Your task to perform on an android device: What's the weather today? Image 0: 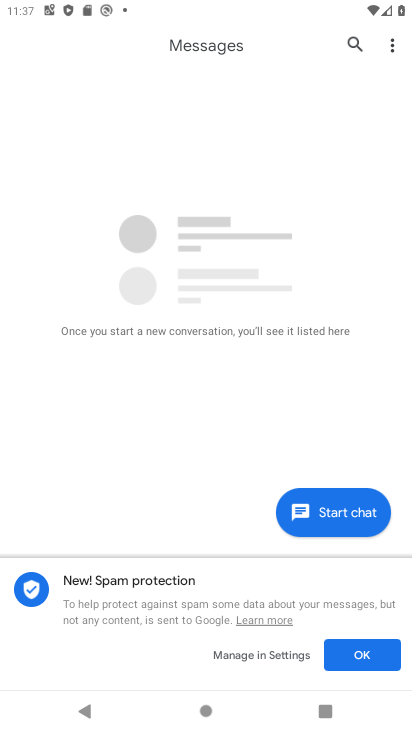
Step 0: press home button
Your task to perform on an android device: What's the weather today? Image 1: 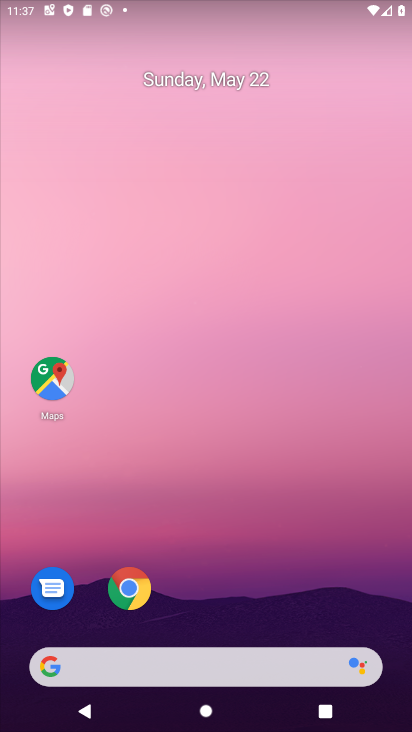
Step 1: drag from (249, 692) to (246, 171)
Your task to perform on an android device: What's the weather today? Image 2: 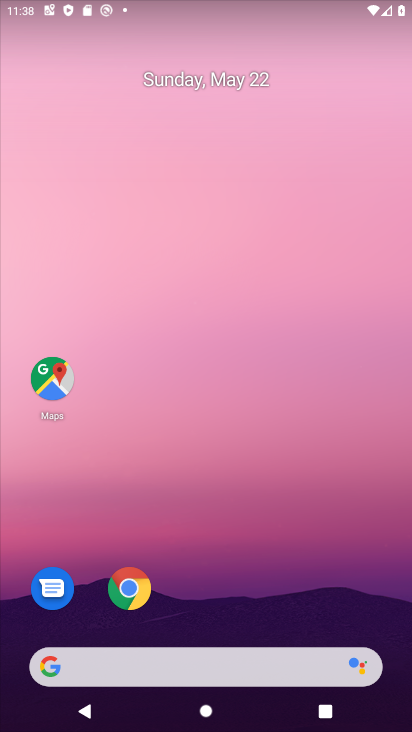
Step 2: drag from (248, 689) to (267, 11)
Your task to perform on an android device: What's the weather today? Image 3: 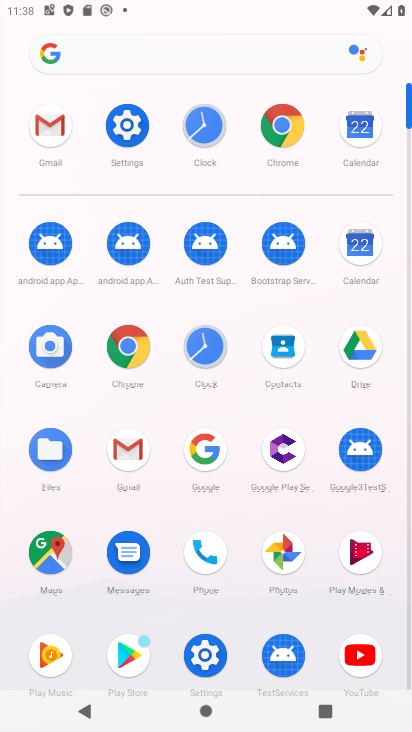
Step 3: click (178, 47)
Your task to perform on an android device: What's the weather today? Image 4: 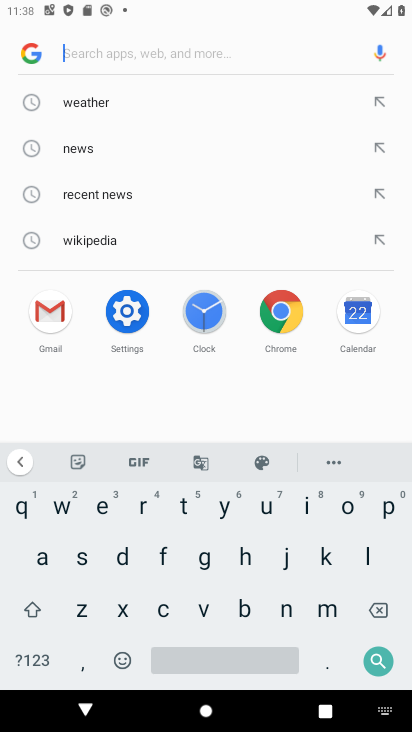
Step 4: click (87, 100)
Your task to perform on an android device: What's the weather today? Image 5: 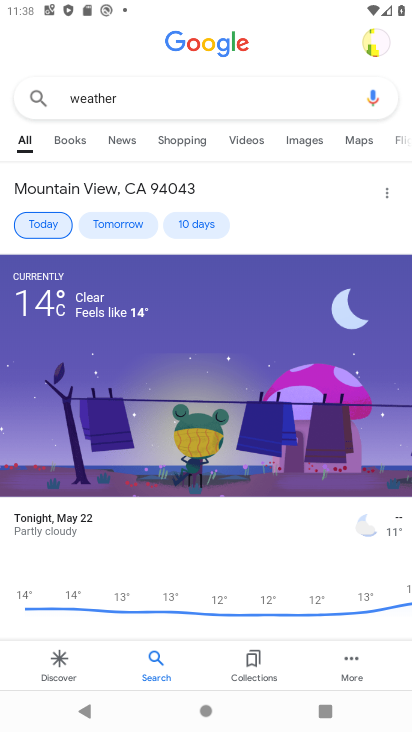
Step 5: task complete